Your task to perform on an android device: Show me popular videos on Youtube Image 0: 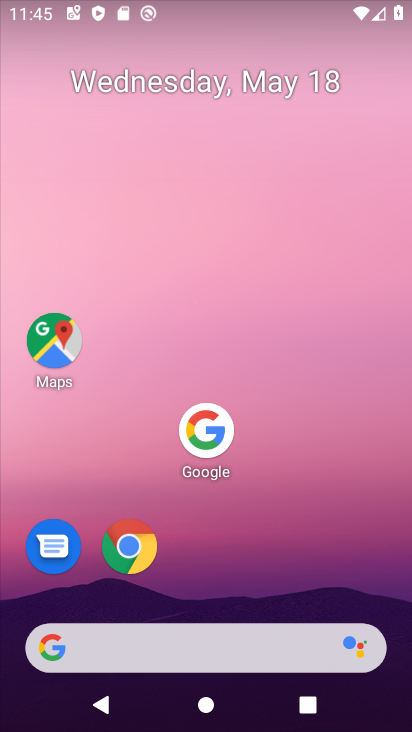
Step 0: drag from (278, 558) to (274, 118)
Your task to perform on an android device: Show me popular videos on Youtube Image 1: 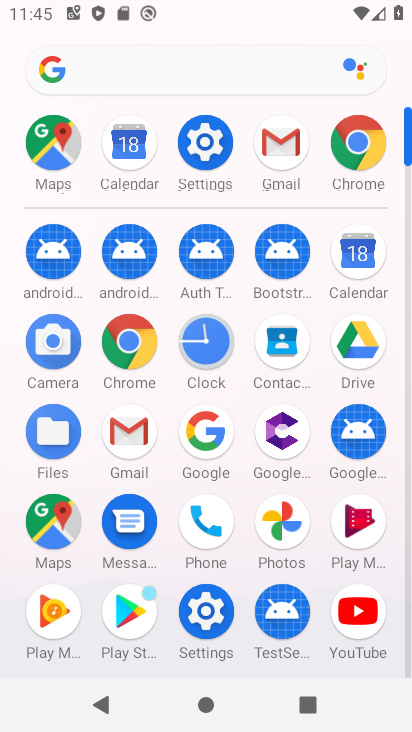
Step 1: click (362, 603)
Your task to perform on an android device: Show me popular videos on Youtube Image 2: 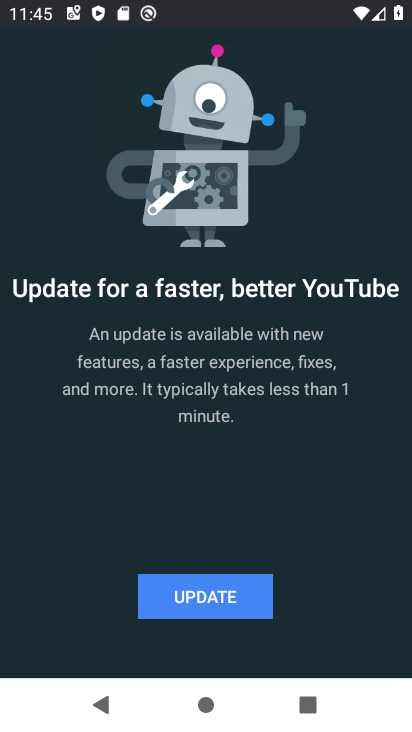
Step 2: click (200, 601)
Your task to perform on an android device: Show me popular videos on Youtube Image 3: 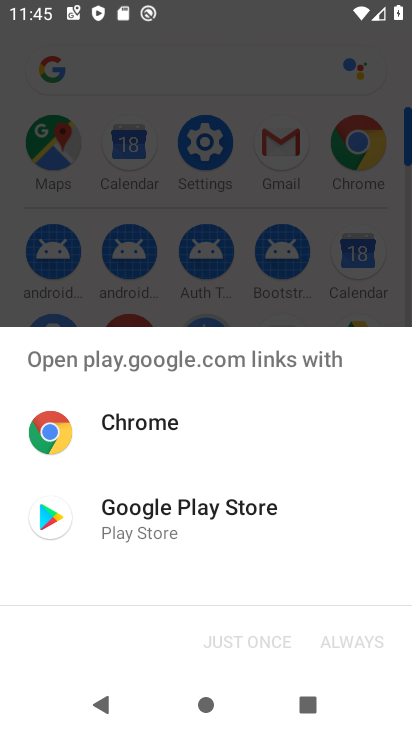
Step 3: click (169, 528)
Your task to perform on an android device: Show me popular videos on Youtube Image 4: 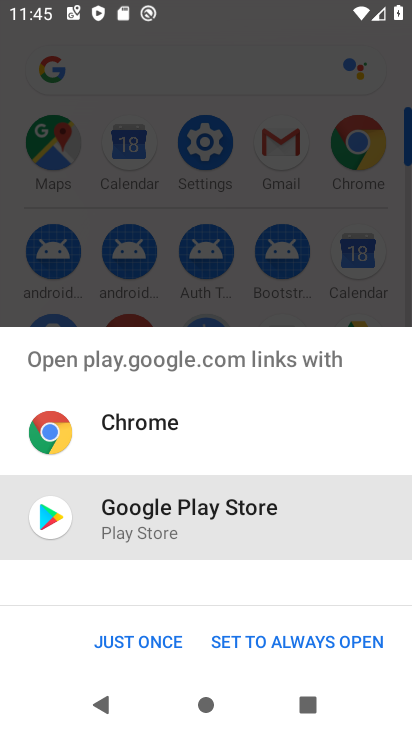
Step 4: click (147, 649)
Your task to perform on an android device: Show me popular videos on Youtube Image 5: 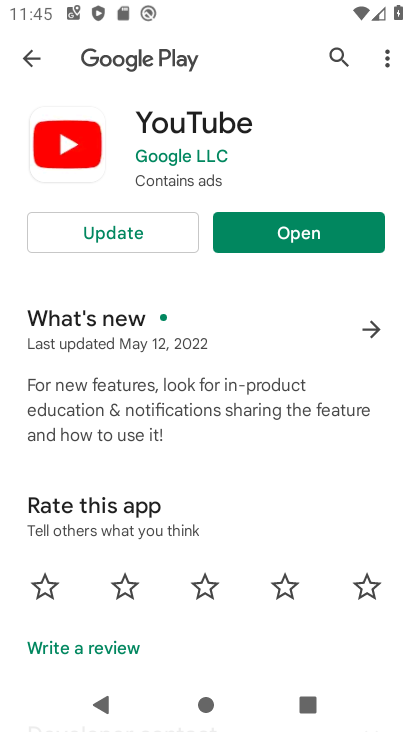
Step 5: click (109, 239)
Your task to perform on an android device: Show me popular videos on Youtube Image 6: 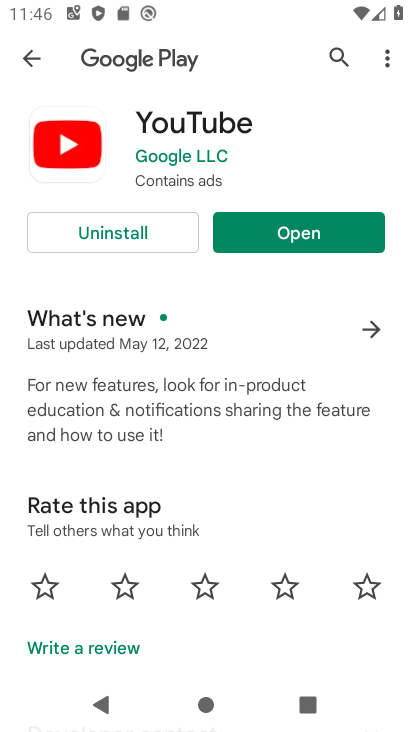
Step 6: click (310, 242)
Your task to perform on an android device: Show me popular videos on Youtube Image 7: 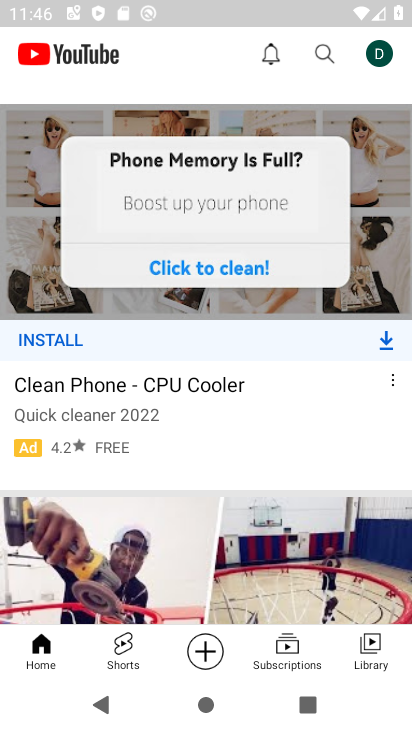
Step 7: task complete